Your task to perform on an android device: Open wifi settings Image 0: 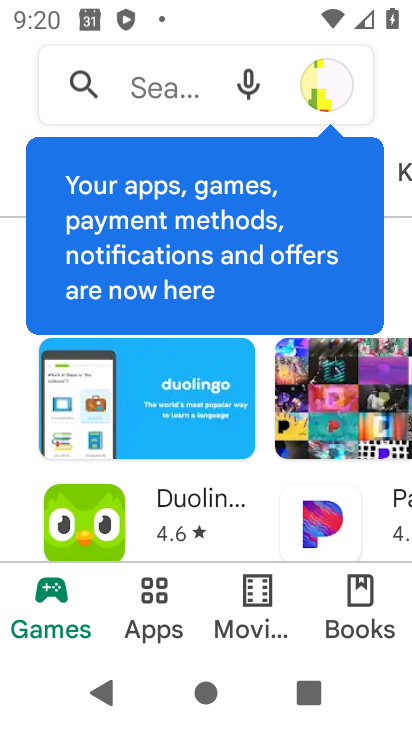
Step 0: press home button
Your task to perform on an android device: Open wifi settings Image 1: 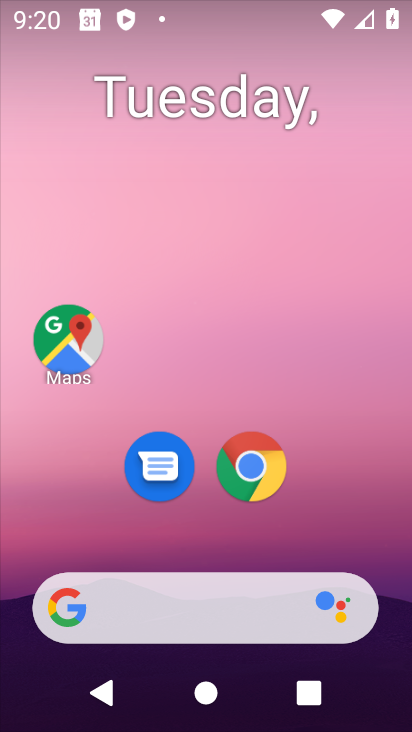
Step 1: drag from (330, 528) to (363, 2)
Your task to perform on an android device: Open wifi settings Image 2: 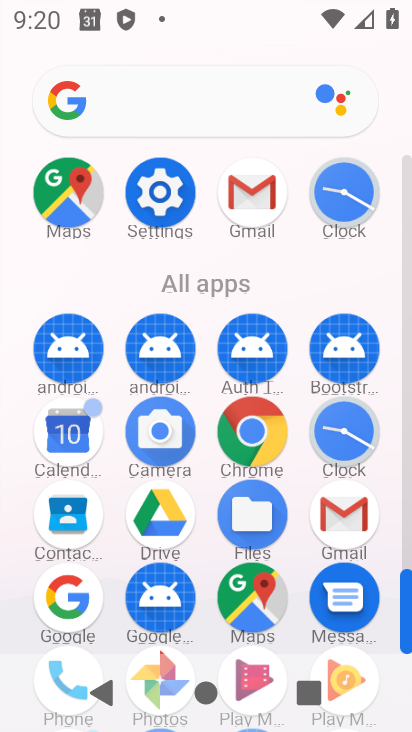
Step 2: click (158, 185)
Your task to perform on an android device: Open wifi settings Image 3: 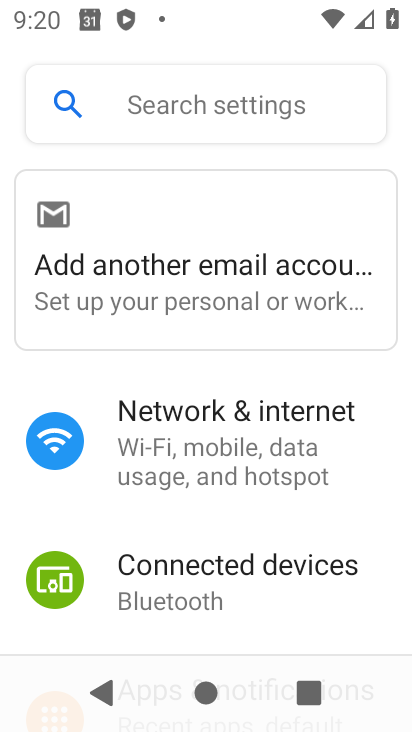
Step 3: click (230, 420)
Your task to perform on an android device: Open wifi settings Image 4: 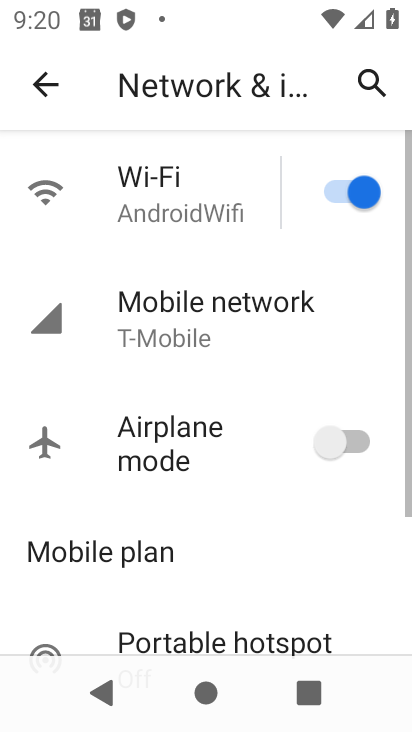
Step 4: click (203, 180)
Your task to perform on an android device: Open wifi settings Image 5: 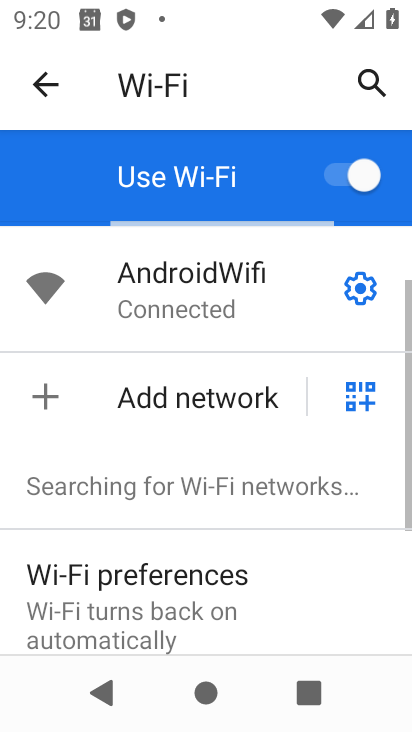
Step 5: click (373, 289)
Your task to perform on an android device: Open wifi settings Image 6: 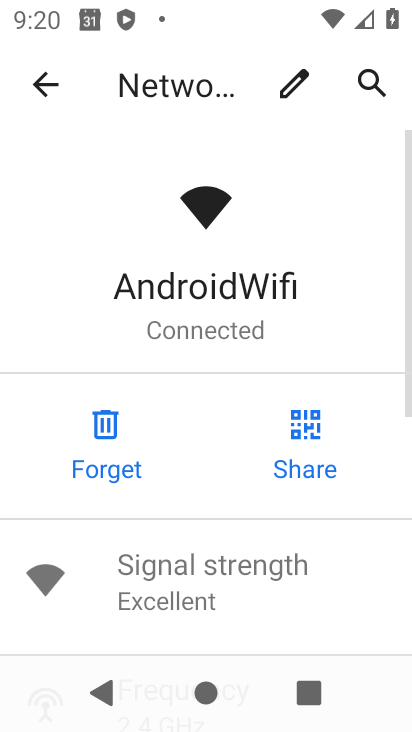
Step 6: task complete